Your task to perform on an android device: Go to battery settings Image 0: 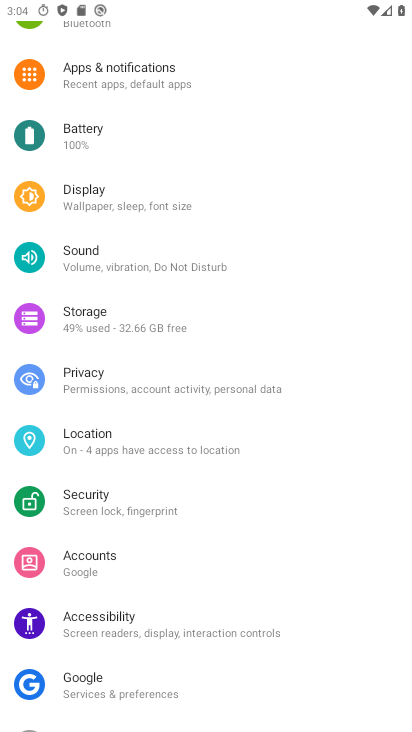
Step 0: click (73, 130)
Your task to perform on an android device: Go to battery settings Image 1: 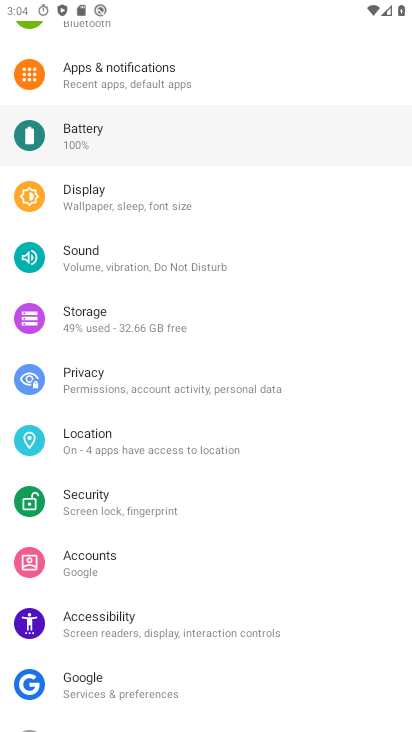
Step 1: click (68, 130)
Your task to perform on an android device: Go to battery settings Image 2: 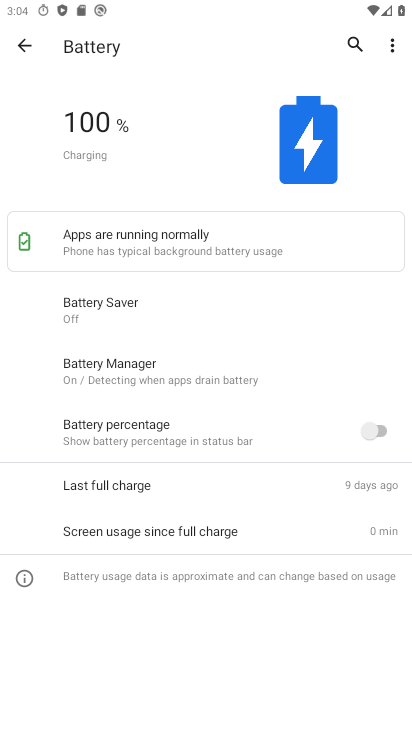
Step 2: task complete